Your task to perform on an android device: turn on wifi Image 0: 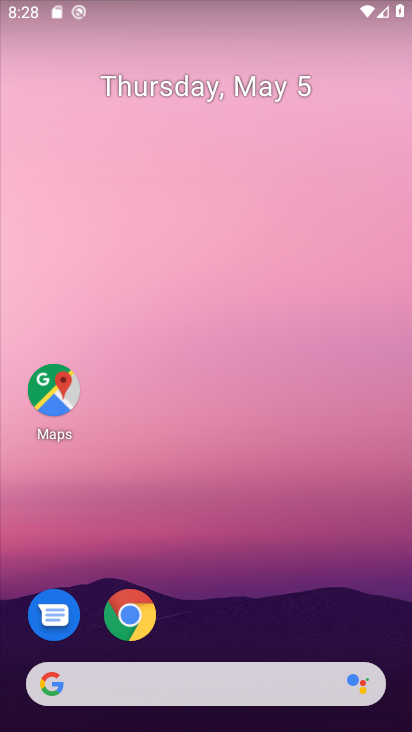
Step 0: drag from (163, 657) to (147, 160)
Your task to perform on an android device: turn on wifi Image 1: 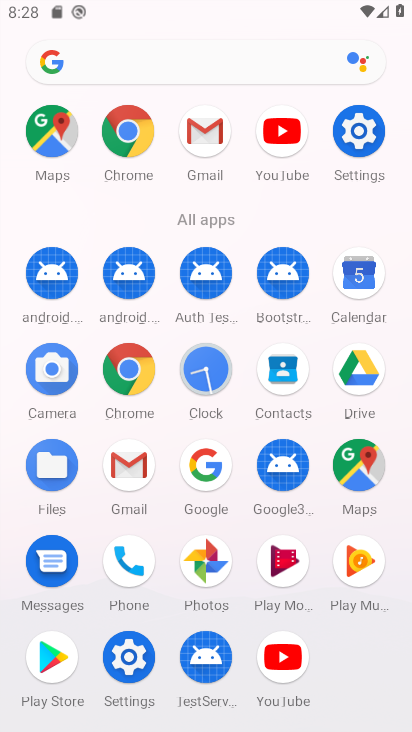
Step 1: click (371, 125)
Your task to perform on an android device: turn on wifi Image 2: 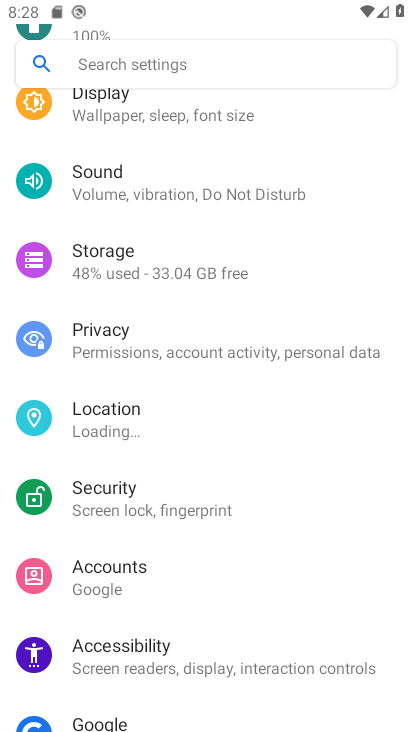
Step 2: drag from (174, 119) to (178, 650)
Your task to perform on an android device: turn on wifi Image 3: 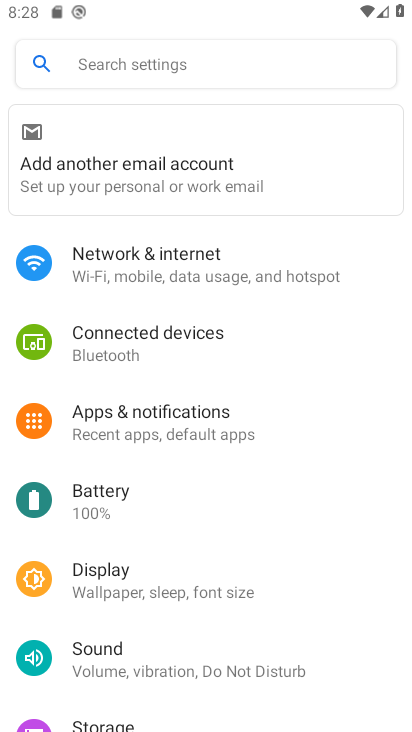
Step 3: click (186, 266)
Your task to perform on an android device: turn on wifi Image 4: 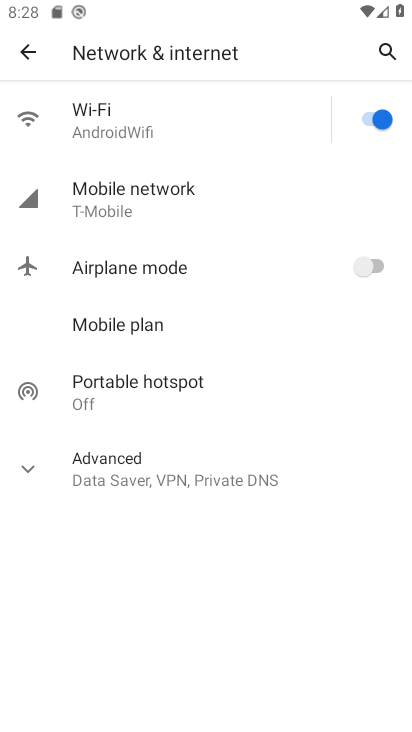
Step 4: task complete